Your task to perform on an android device: Open Chrome and go to the settings page Image 0: 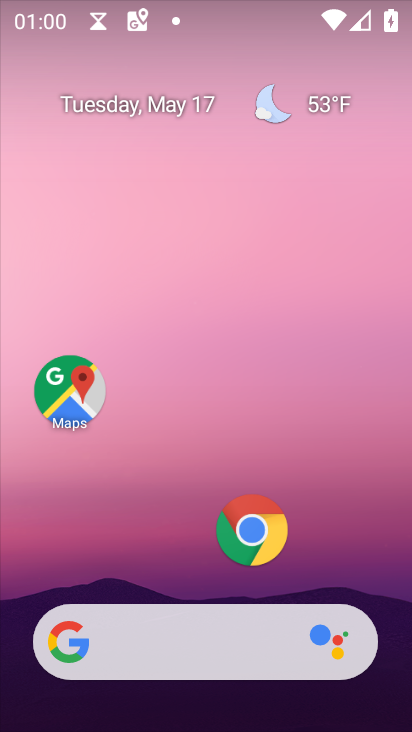
Step 0: click (270, 548)
Your task to perform on an android device: Open Chrome and go to the settings page Image 1: 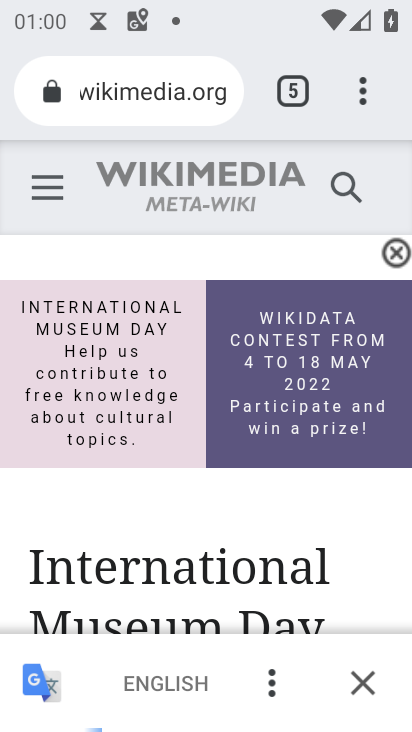
Step 1: click (368, 75)
Your task to perform on an android device: Open Chrome and go to the settings page Image 2: 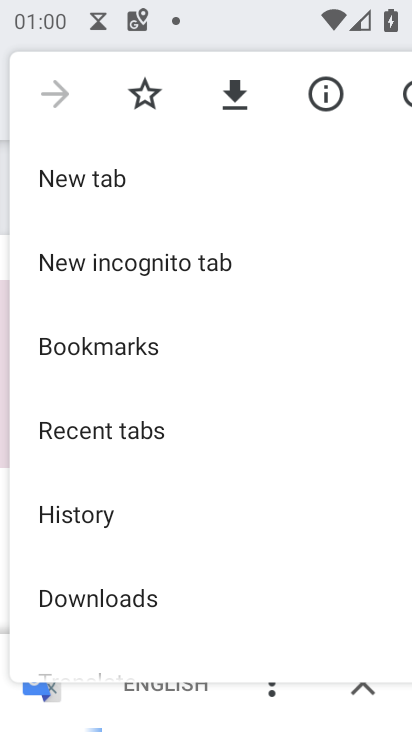
Step 2: drag from (164, 572) to (158, 150)
Your task to perform on an android device: Open Chrome and go to the settings page Image 3: 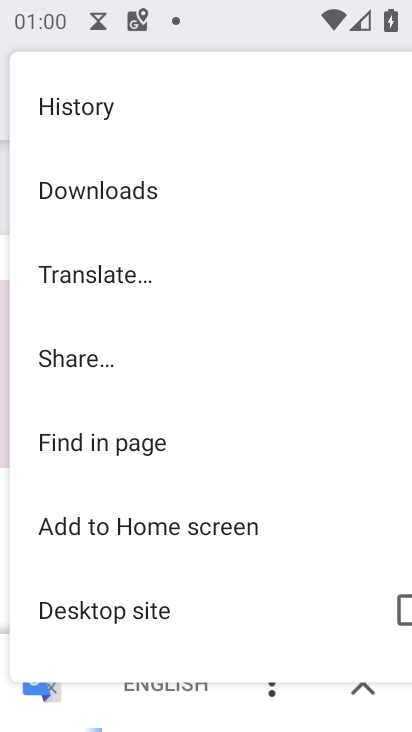
Step 3: drag from (127, 581) to (137, 207)
Your task to perform on an android device: Open Chrome and go to the settings page Image 4: 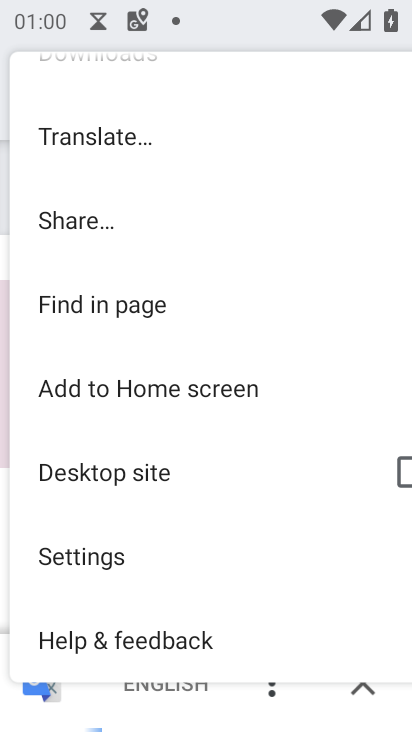
Step 4: click (75, 543)
Your task to perform on an android device: Open Chrome and go to the settings page Image 5: 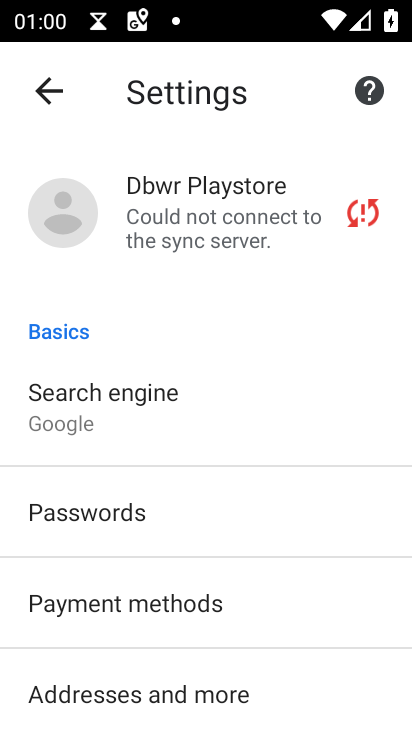
Step 5: task complete